Your task to perform on an android device: Open network settings Image 0: 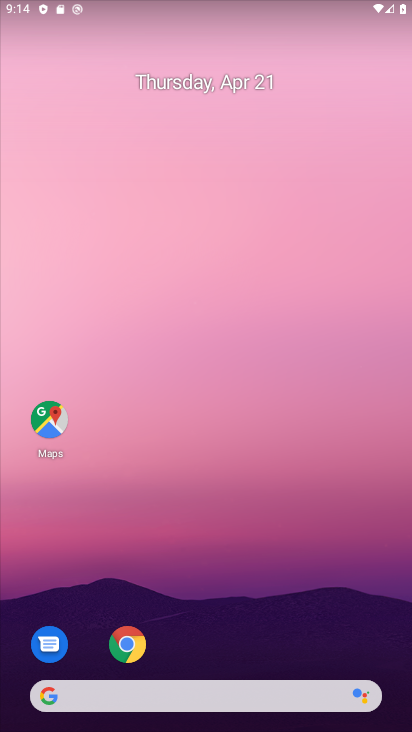
Step 0: drag from (228, 636) to (307, 92)
Your task to perform on an android device: Open network settings Image 1: 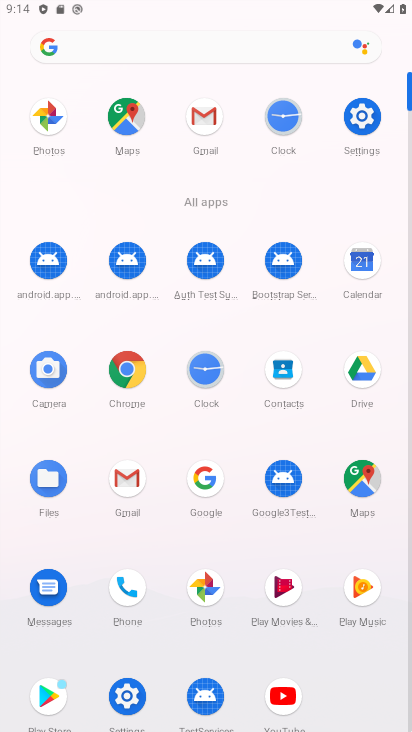
Step 1: click (355, 122)
Your task to perform on an android device: Open network settings Image 2: 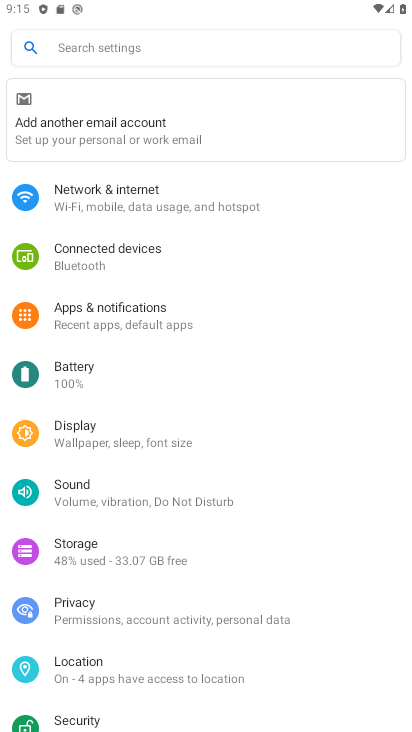
Step 2: click (117, 198)
Your task to perform on an android device: Open network settings Image 3: 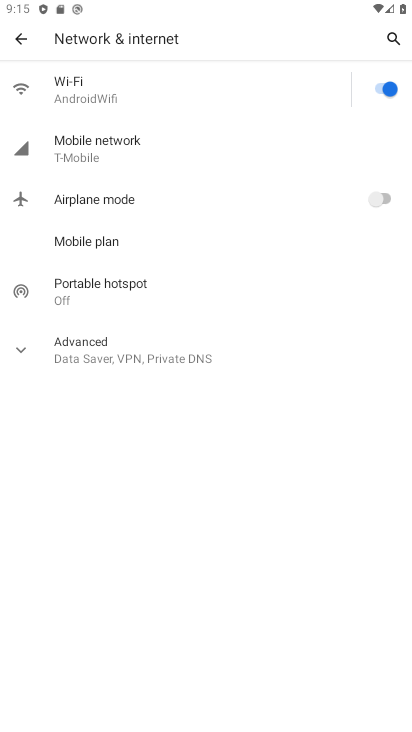
Step 3: task complete